Your task to perform on an android device: Open calendar and show me the third week of next month Image 0: 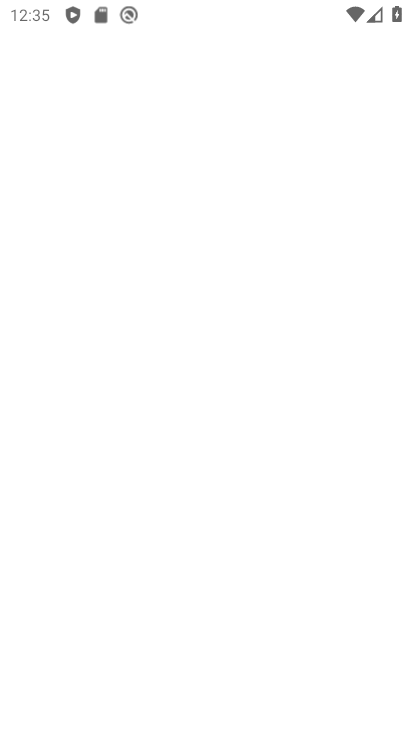
Step 0: press home button
Your task to perform on an android device: Open calendar and show me the third week of next month Image 1: 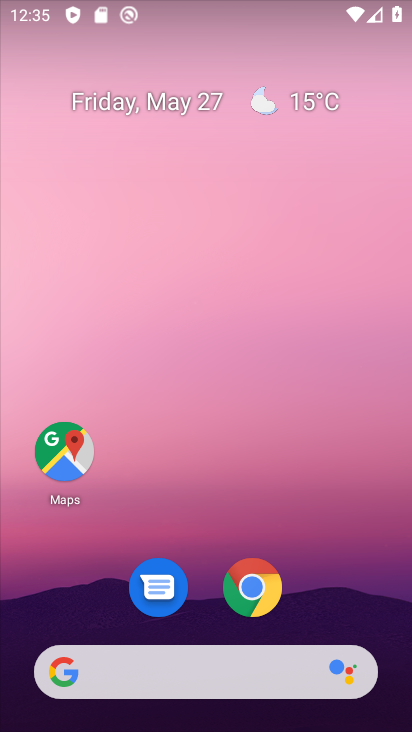
Step 1: drag from (194, 604) to (208, 111)
Your task to perform on an android device: Open calendar and show me the third week of next month Image 2: 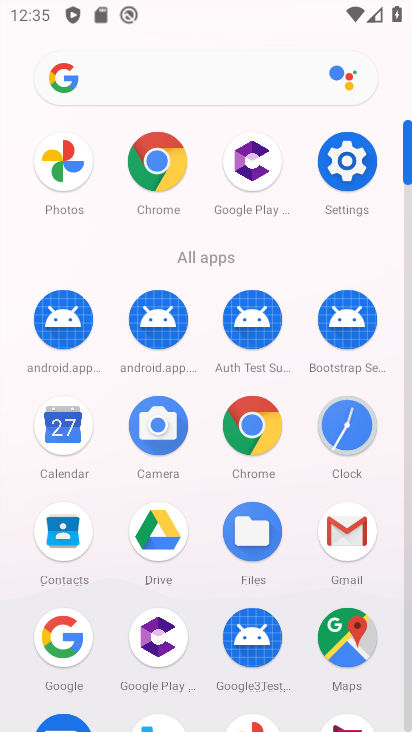
Step 2: click (70, 433)
Your task to perform on an android device: Open calendar and show me the third week of next month Image 3: 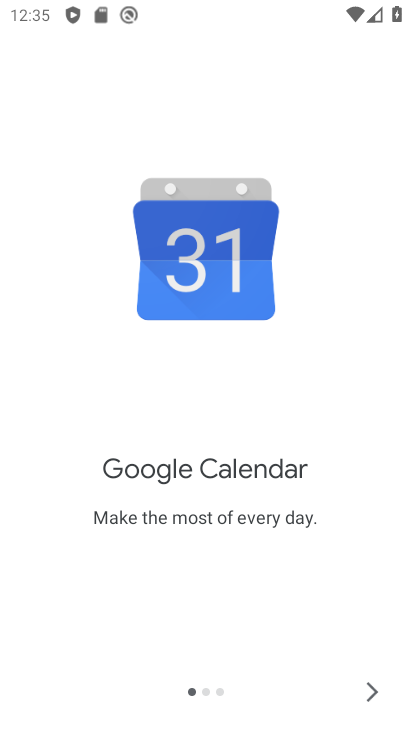
Step 3: click (364, 687)
Your task to perform on an android device: Open calendar and show me the third week of next month Image 4: 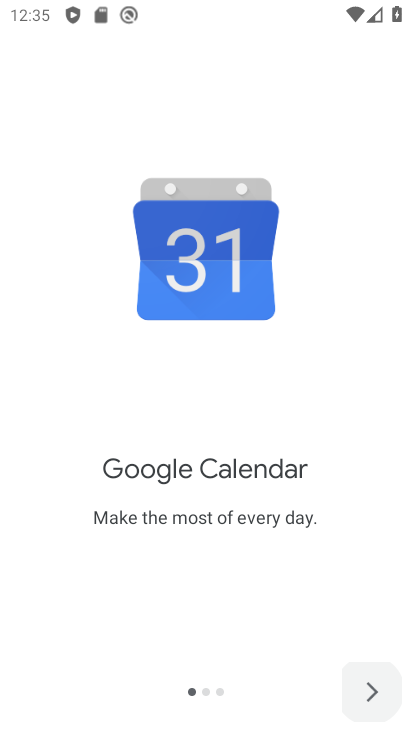
Step 4: click (364, 686)
Your task to perform on an android device: Open calendar and show me the third week of next month Image 5: 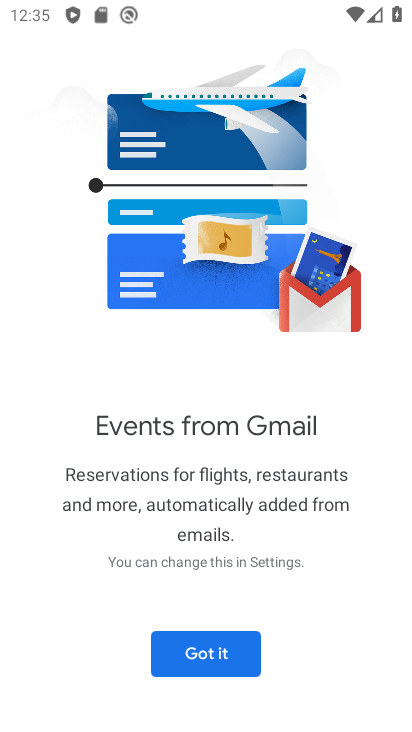
Step 5: click (196, 655)
Your task to perform on an android device: Open calendar and show me the third week of next month Image 6: 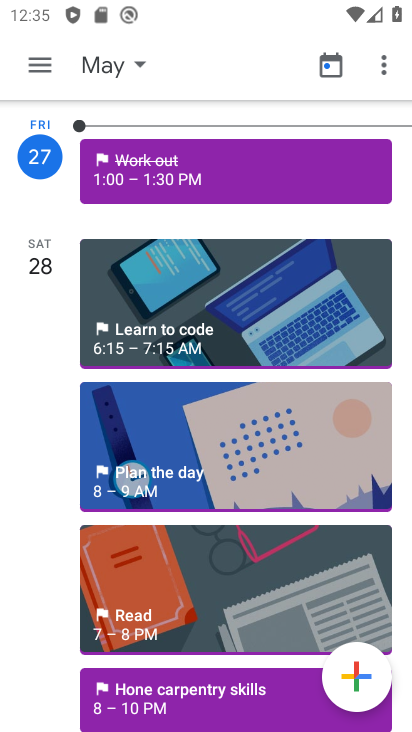
Step 6: click (90, 68)
Your task to perform on an android device: Open calendar and show me the third week of next month Image 7: 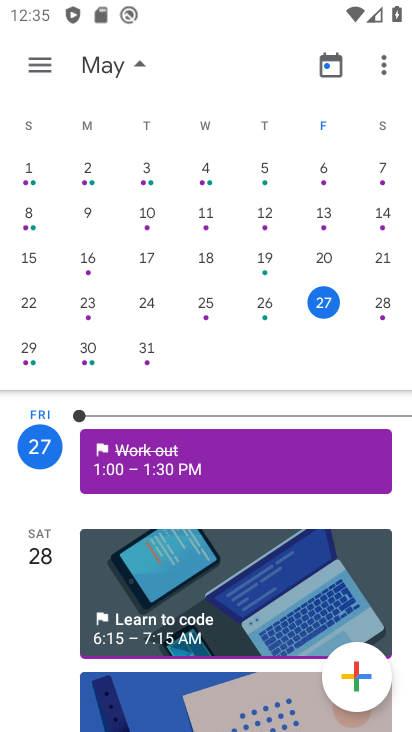
Step 7: drag from (392, 330) to (62, 366)
Your task to perform on an android device: Open calendar and show me the third week of next month Image 8: 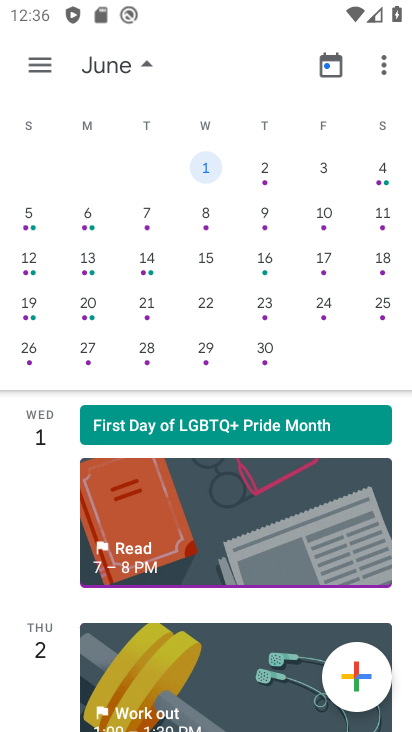
Step 8: click (41, 260)
Your task to perform on an android device: Open calendar and show me the third week of next month Image 9: 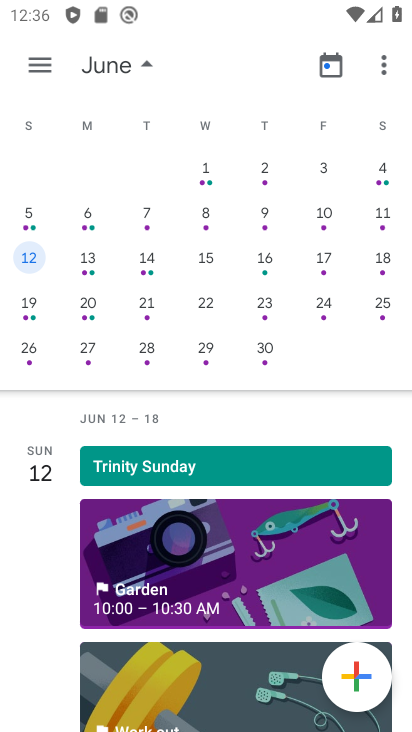
Step 9: task complete